Your task to perform on an android device: turn on the 24-hour format for clock Image 0: 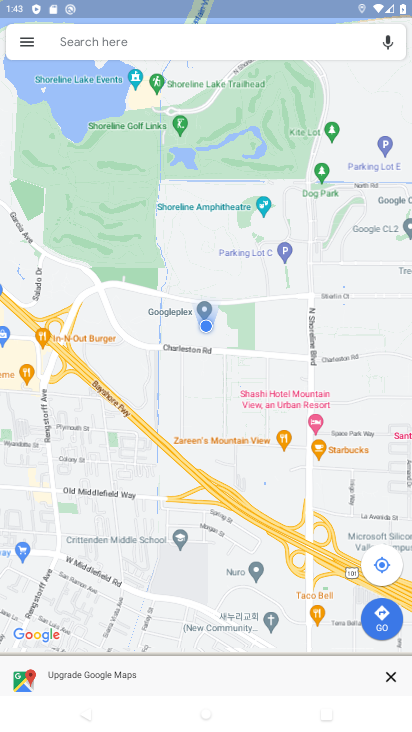
Step 0: press home button
Your task to perform on an android device: turn on the 24-hour format for clock Image 1: 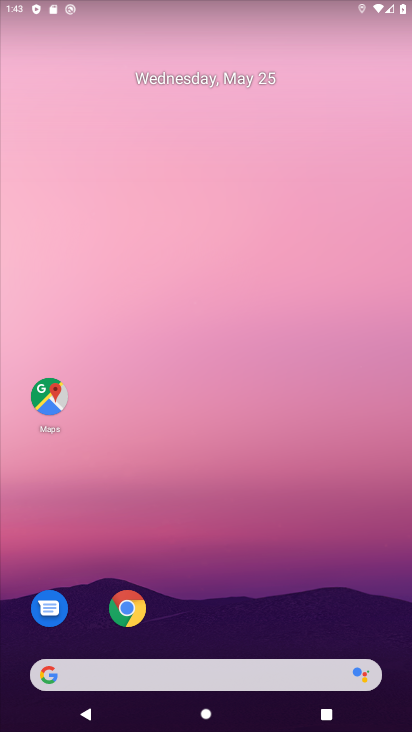
Step 1: drag from (236, 622) to (219, 103)
Your task to perform on an android device: turn on the 24-hour format for clock Image 2: 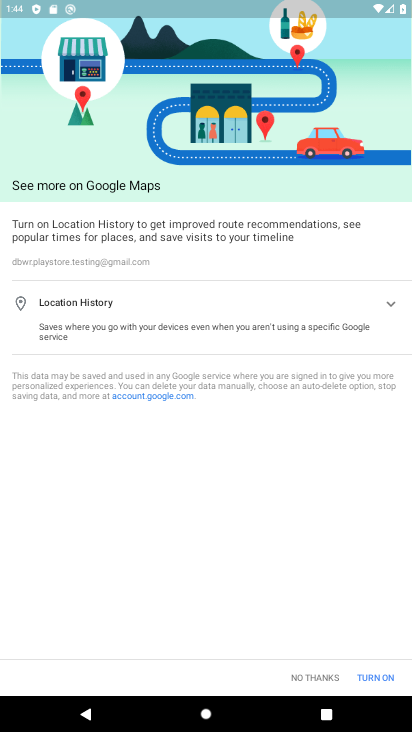
Step 2: press home button
Your task to perform on an android device: turn on the 24-hour format for clock Image 3: 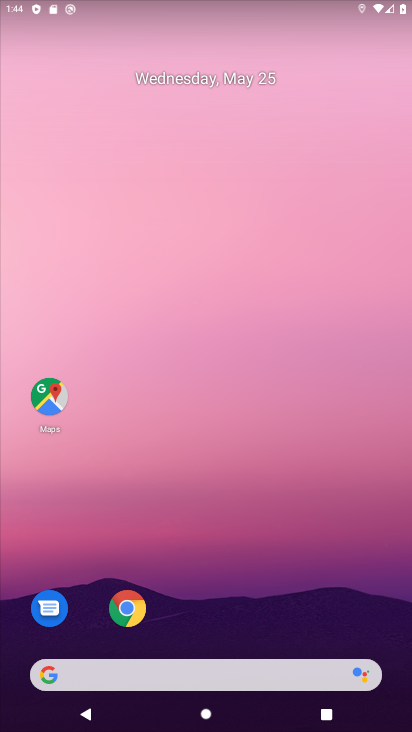
Step 3: drag from (230, 615) to (220, 237)
Your task to perform on an android device: turn on the 24-hour format for clock Image 4: 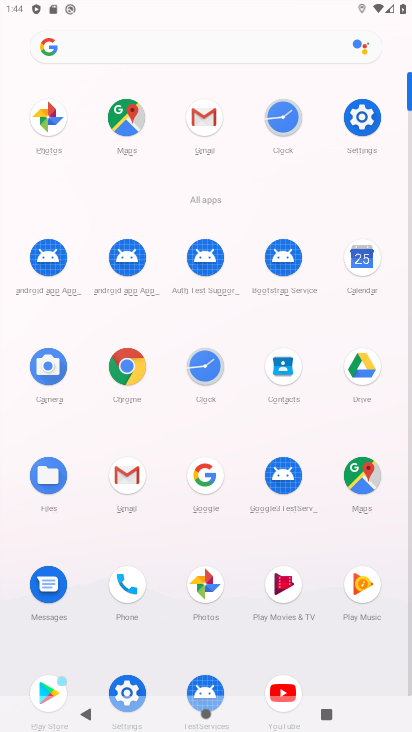
Step 4: click (288, 122)
Your task to perform on an android device: turn on the 24-hour format for clock Image 5: 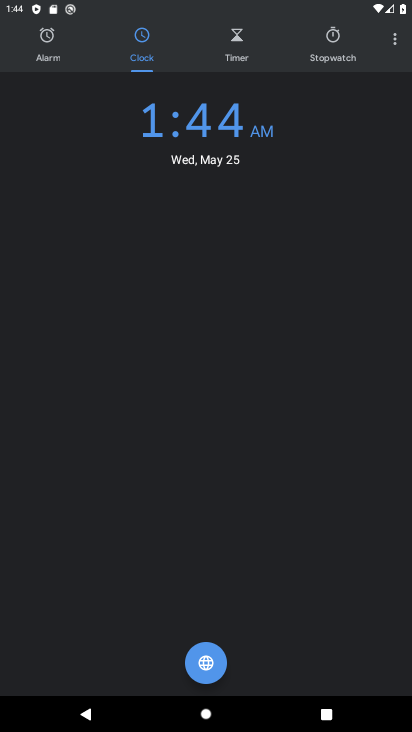
Step 5: click (403, 43)
Your task to perform on an android device: turn on the 24-hour format for clock Image 6: 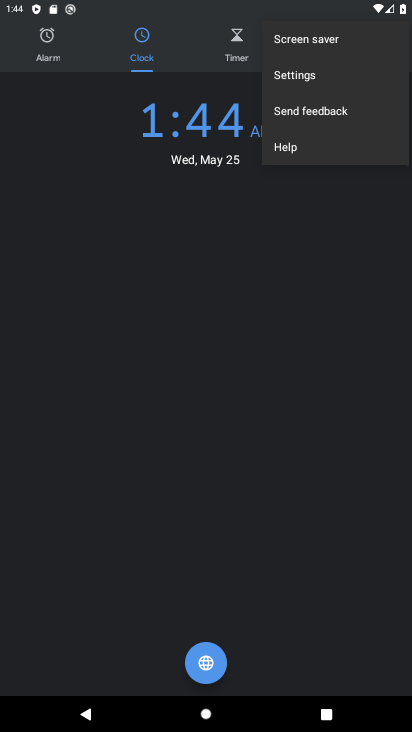
Step 6: click (345, 71)
Your task to perform on an android device: turn on the 24-hour format for clock Image 7: 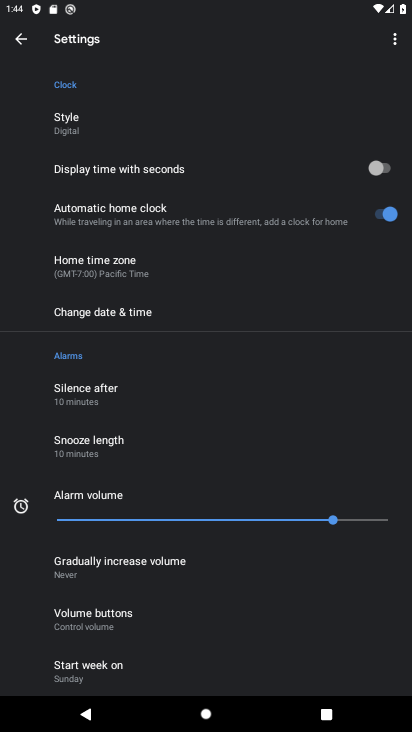
Step 7: click (234, 325)
Your task to perform on an android device: turn on the 24-hour format for clock Image 8: 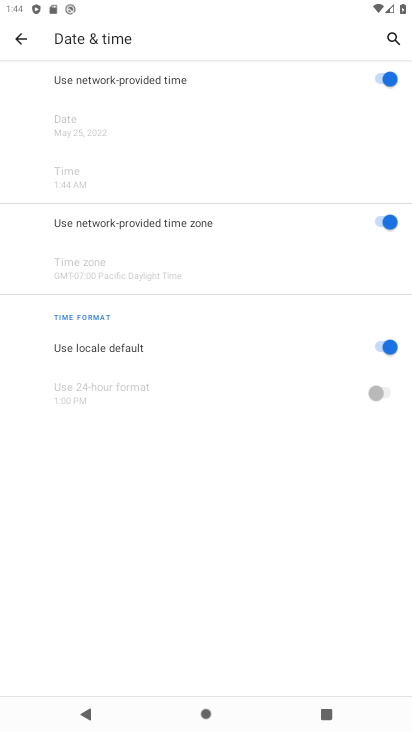
Step 8: click (383, 352)
Your task to perform on an android device: turn on the 24-hour format for clock Image 9: 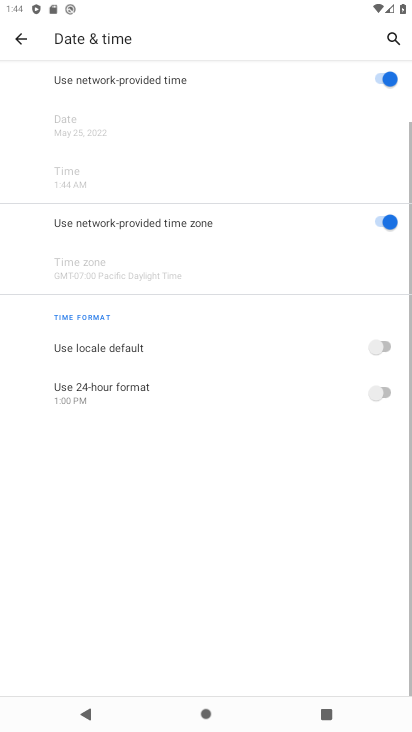
Step 9: click (388, 385)
Your task to perform on an android device: turn on the 24-hour format for clock Image 10: 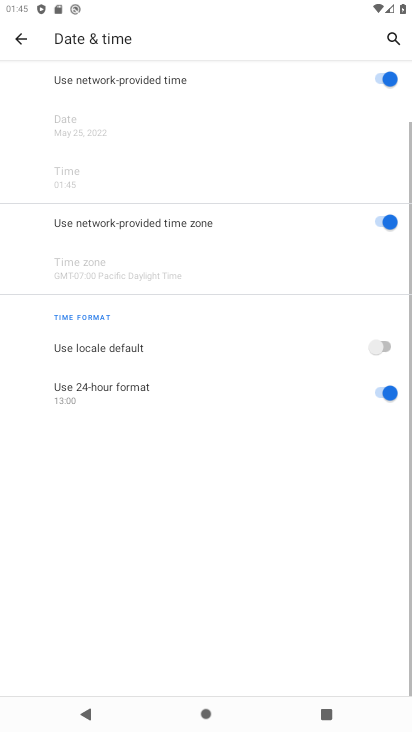
Step 10: task complete